Your task to perform on an android device: open app "Lyft - Rideshare, Bikes, Scooters & Transit" Image 0: 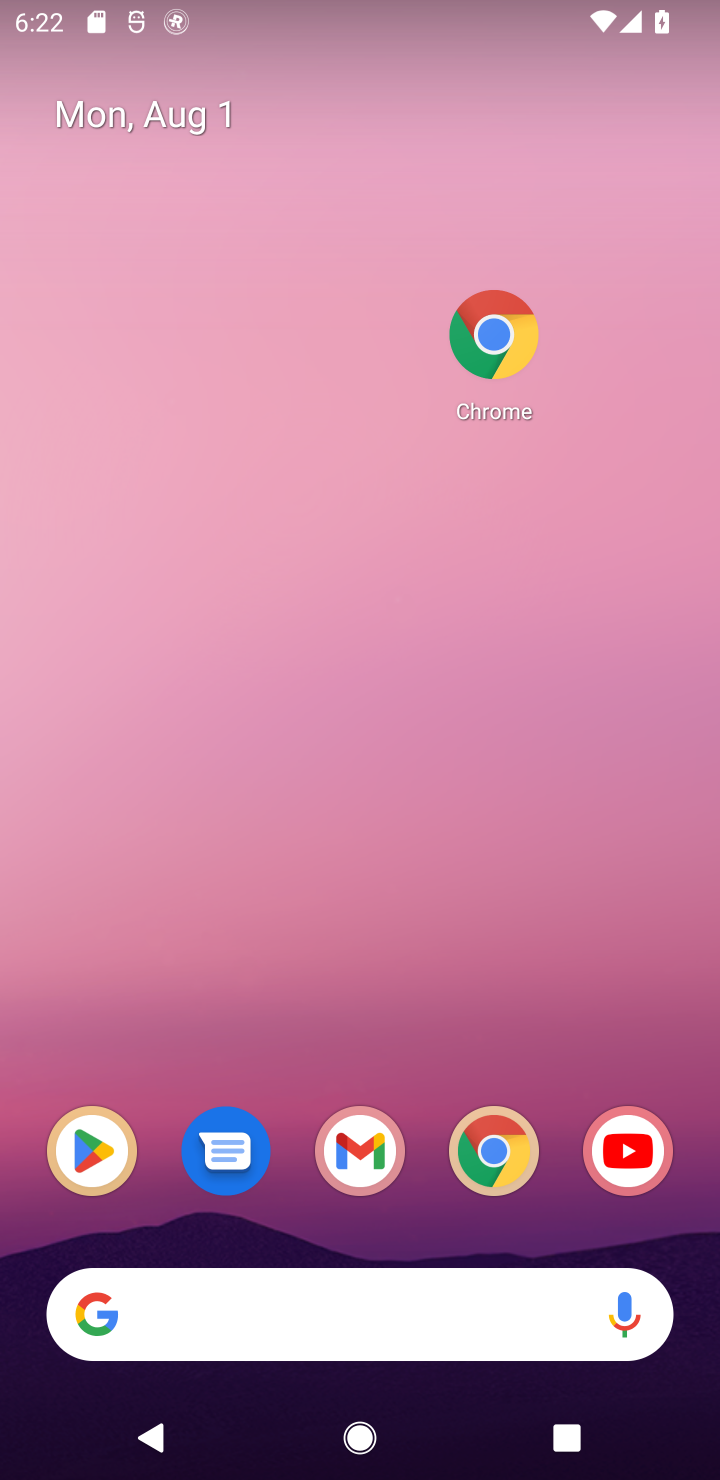
Step 0: click (89, 1137)
Your task to perform on an android device: open app "Lyft - Rideshare, Bikes, Scooters & Transit" Image 1: 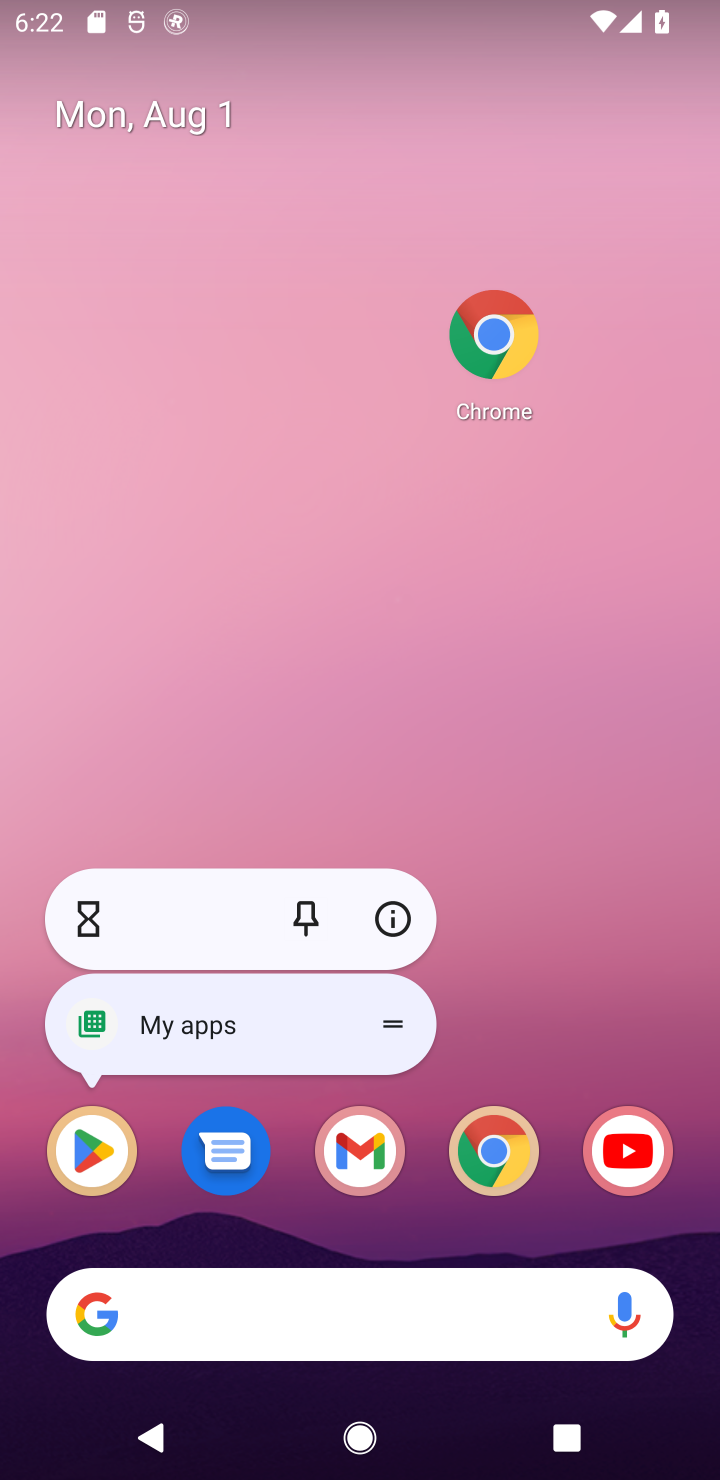
Step 1: click (78, 1152)
Your task to perform on an android device: open app "Lyft - Rideshare, Bikes, Scooters & Transit" Image 2: 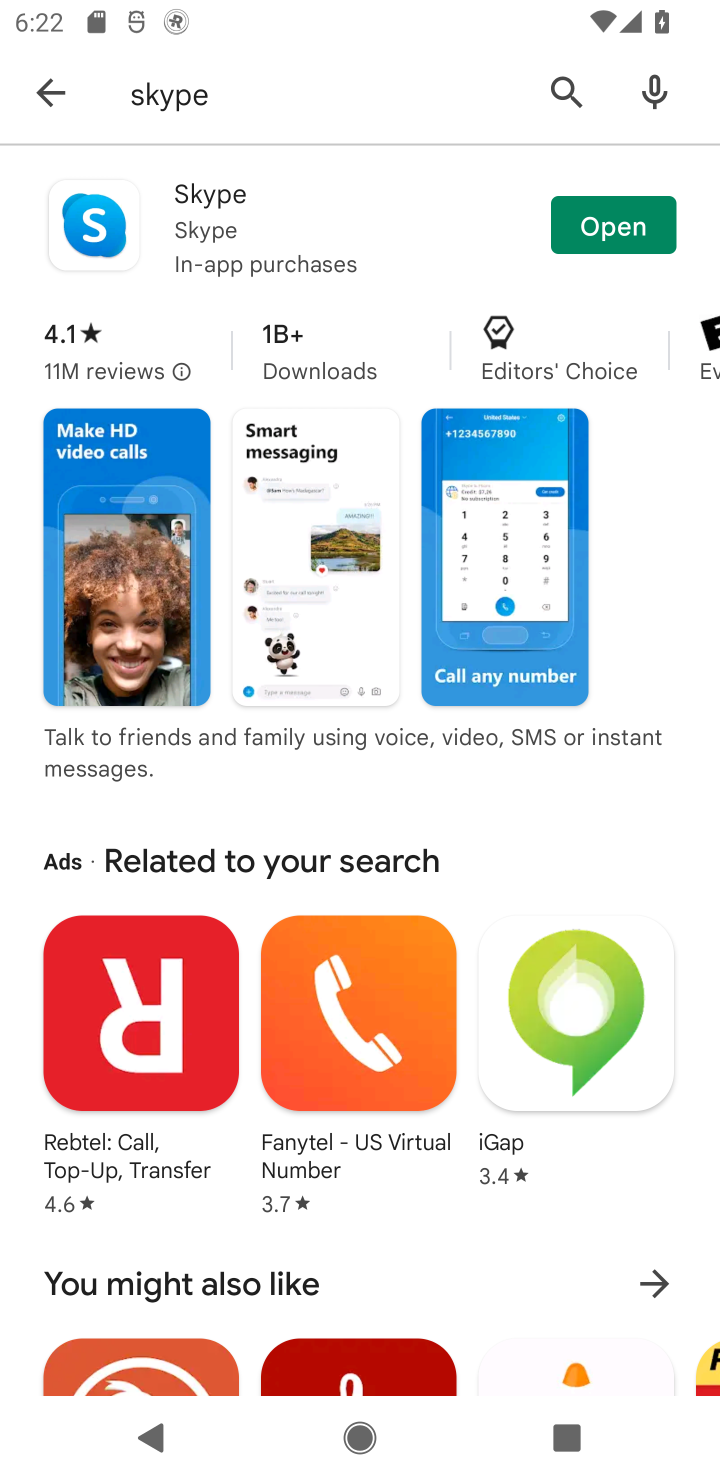
Step 2: click (574, 88)
Your task to perform on an android device: open app "Lyft - Rideshare, Bikes, Scooters & Transit" Image 3: 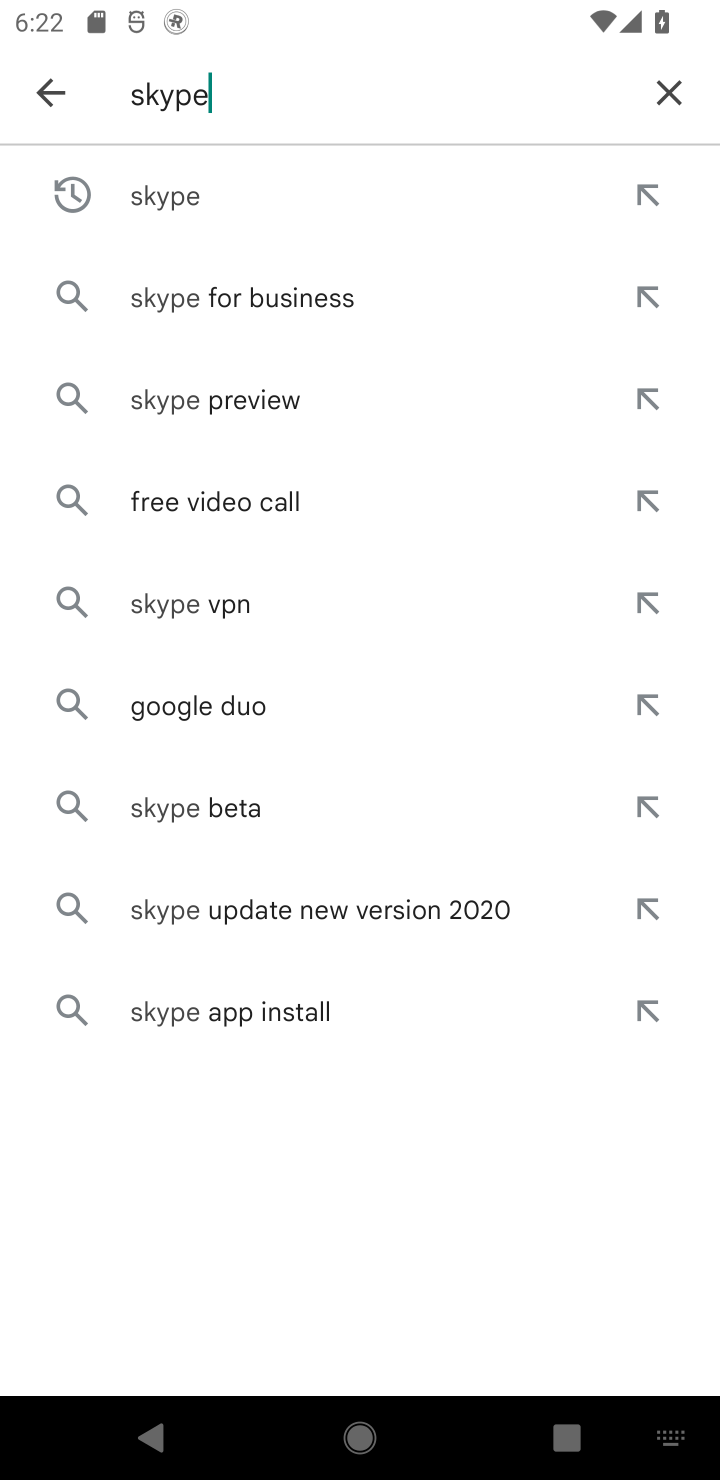
Step 3: click (653, 100)
Your task to perform on an android device: open app "Lyft - Rideshare, Bikes, Scooters & Transit" Image 4: 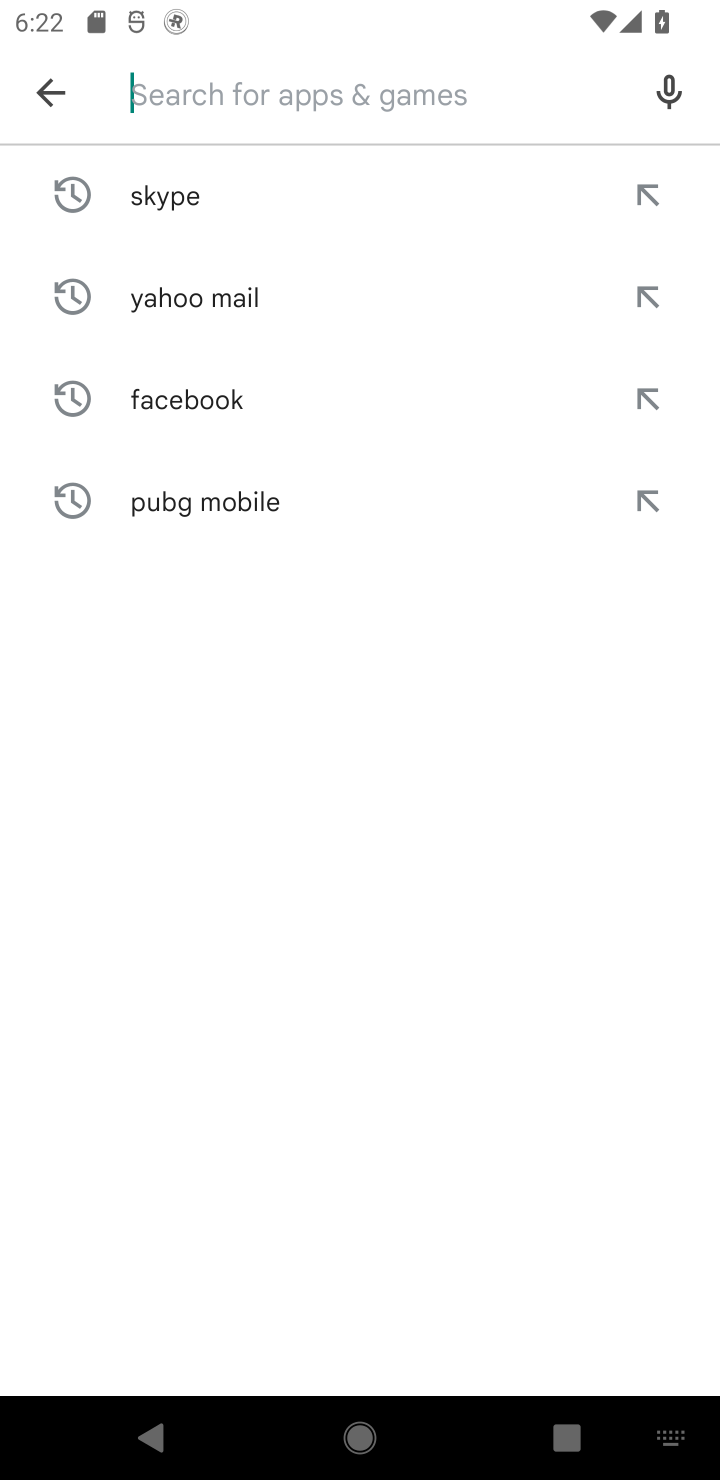
Step 4: type "Lyft - Rideshare, Bikes, Scooters & Transit"
Your task to perform on an android device: open app "Lyft - Rideshare, Bikes, Scooters & Transit" Image 5: 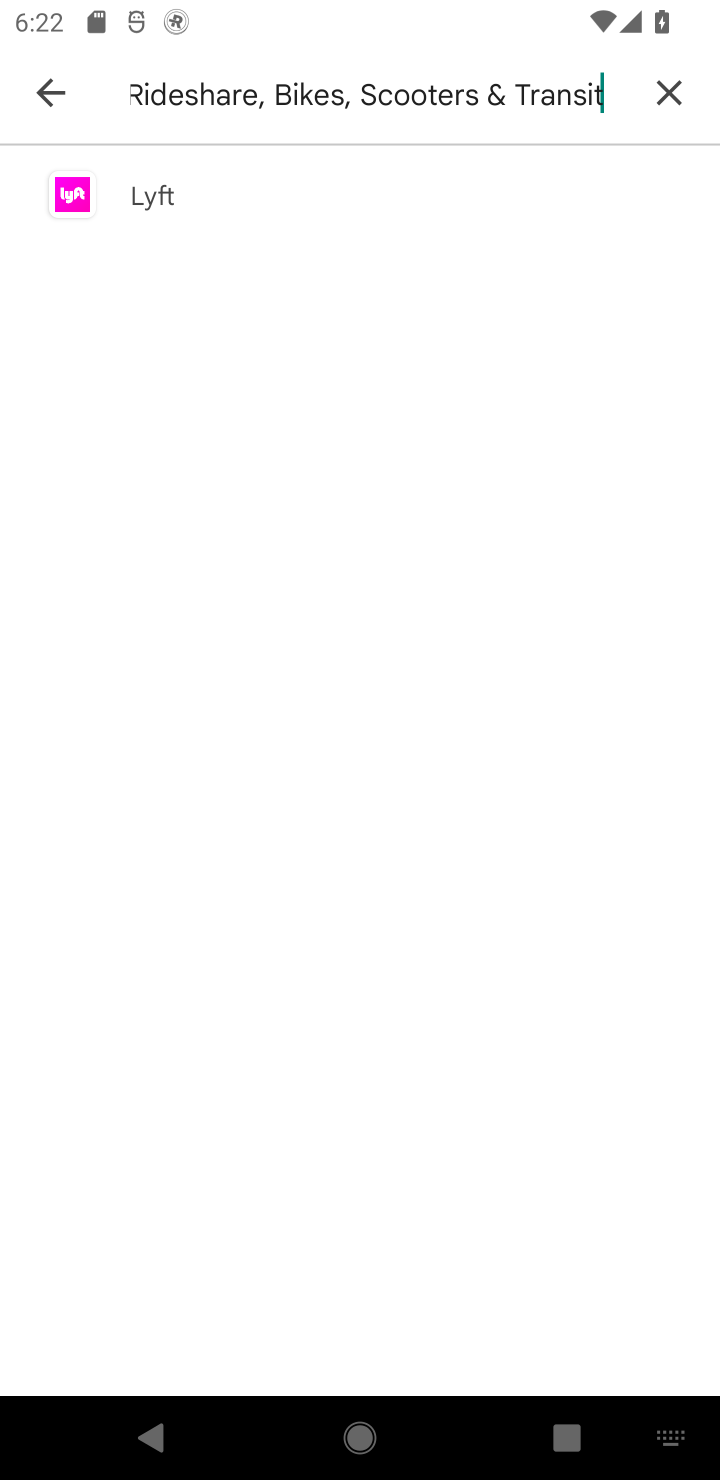
Step 5: click (187, 203)
Your task to perform on an android device: open app "Lyft - Rideshare, Bikes, Scooters & Transit" Image 6: 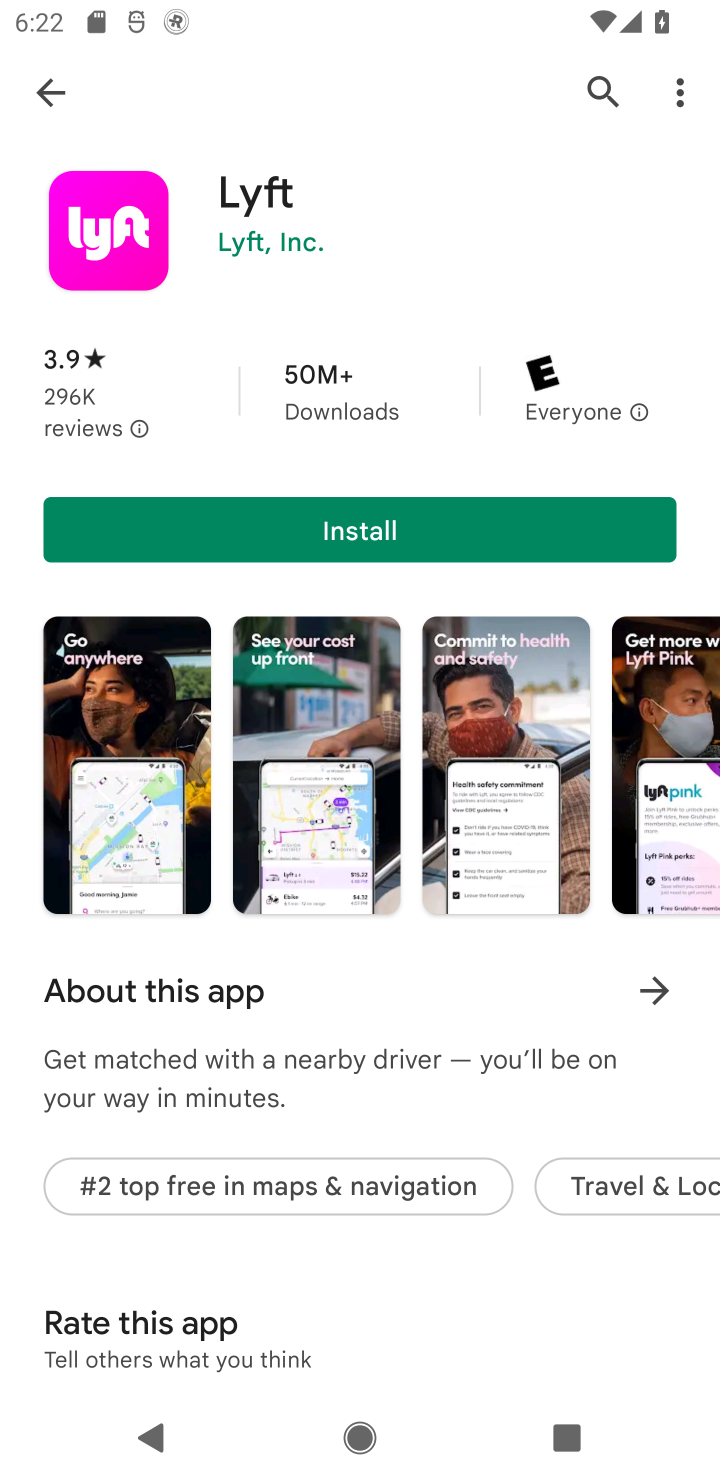
Step 6: task complete